Your task to perform on an android device: turn on priority inbox in the gmail app Image 0: 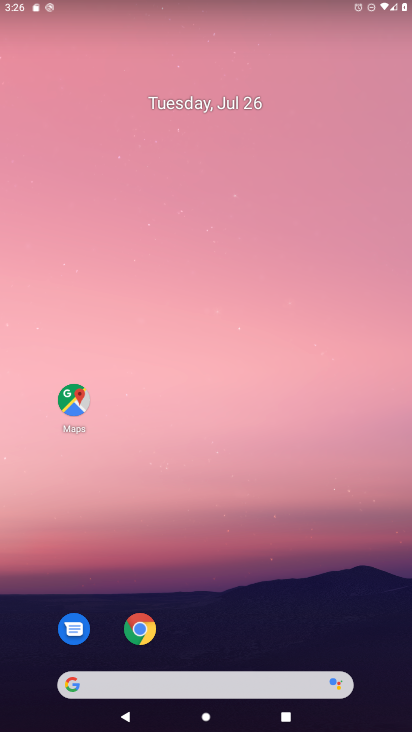
Step 0: drag from (207, 624) to (237, 191)
Your task to perform on an android device: turn on priority inbox in the gmail app Image 1: 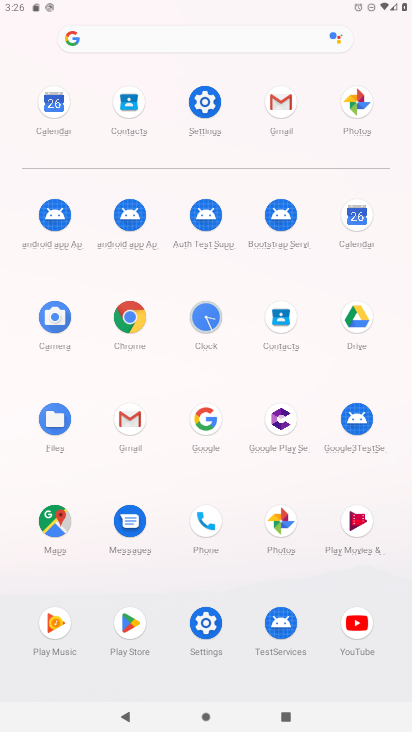
Step 1: click (290, 114)
Your task to perform on an android device: turn on priority inbox in the gmail app Image 2: 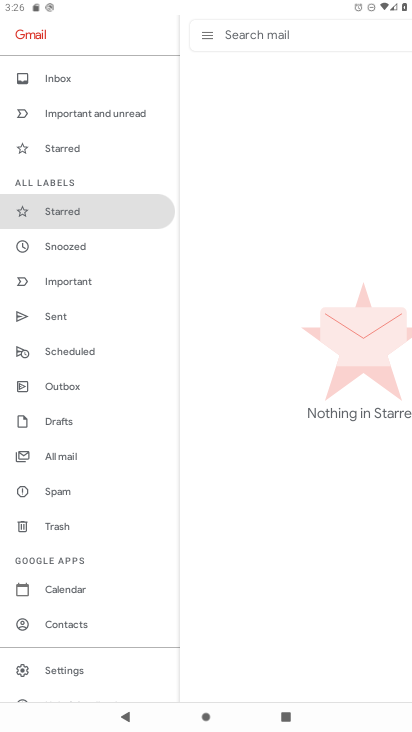
Step 2: click (49, 667)
Your task to perform on an android device: turn on priority inbox in the gmail app Image 3: 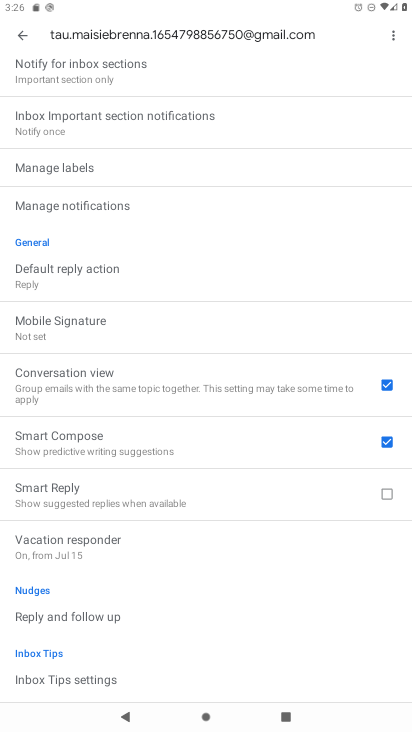
Step 3: drag from (119, 200) to (146, 398)
Your task to perform on an android device: turn on priority inbox in the gmail app Image 4: 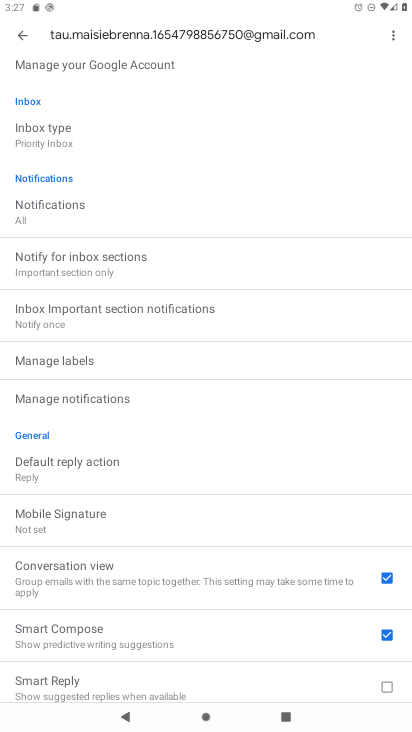
Step 4: click (59, 151)
Your task to perform on an android device: turn on priority inbox in the gmail app Image 5: 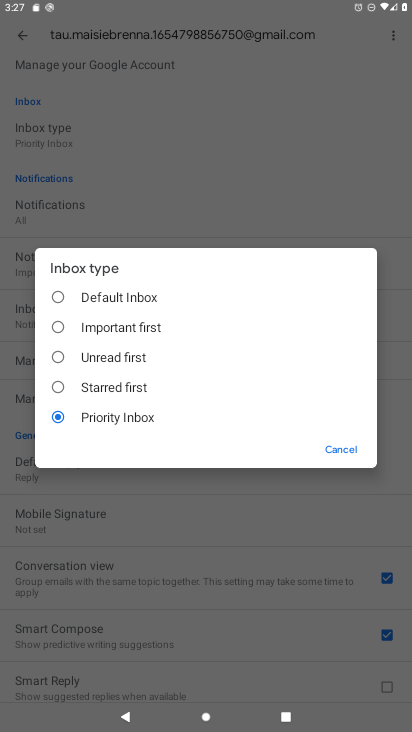
Step 5: task complete